Your task to perform on an android device: Empty the shopping cart on amazon. Search for asus zenbook on amazon, select the first entry, and add it to the cart. Image 0: 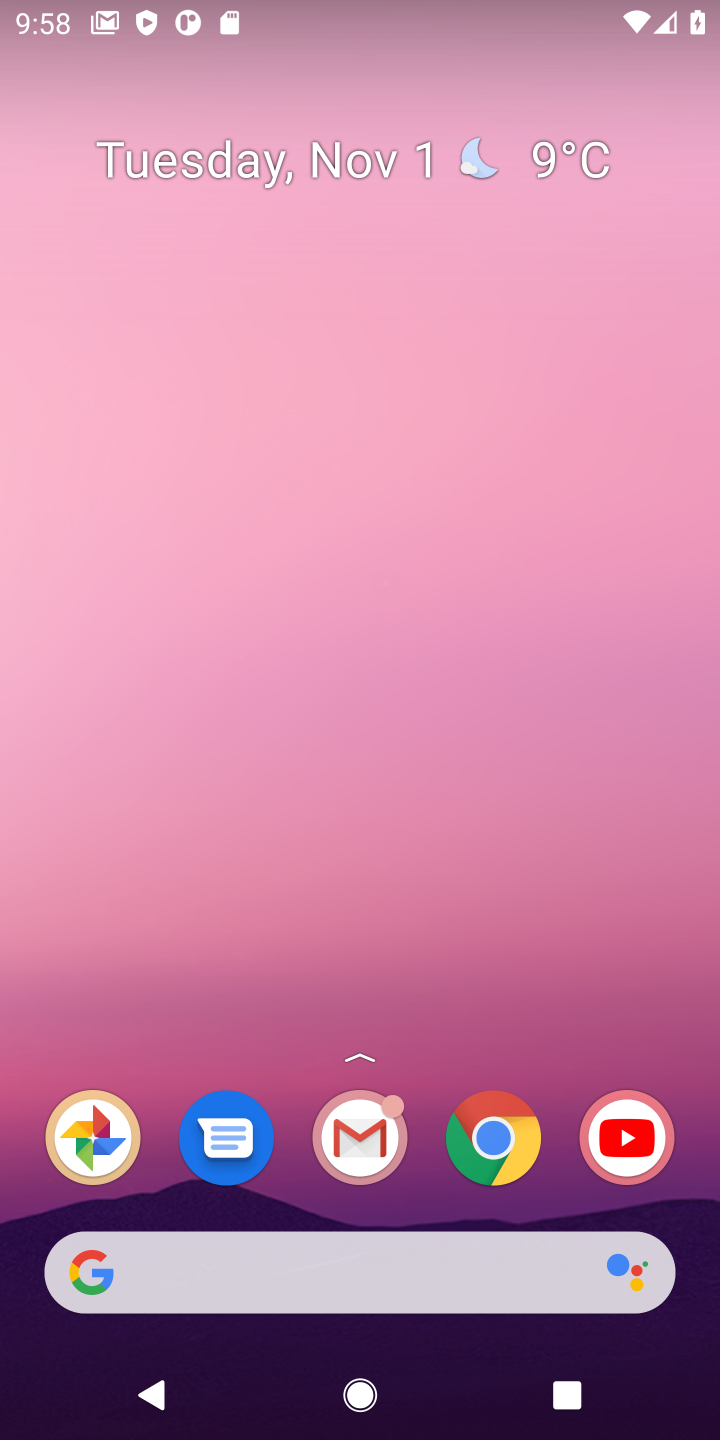
Step 0: click (493, 1147)
Your task to perform on an android device: Empty the shopping cart on amazon. Search for asus zenbook on amazon, select the first entry, and add it to the cart. Image 1: 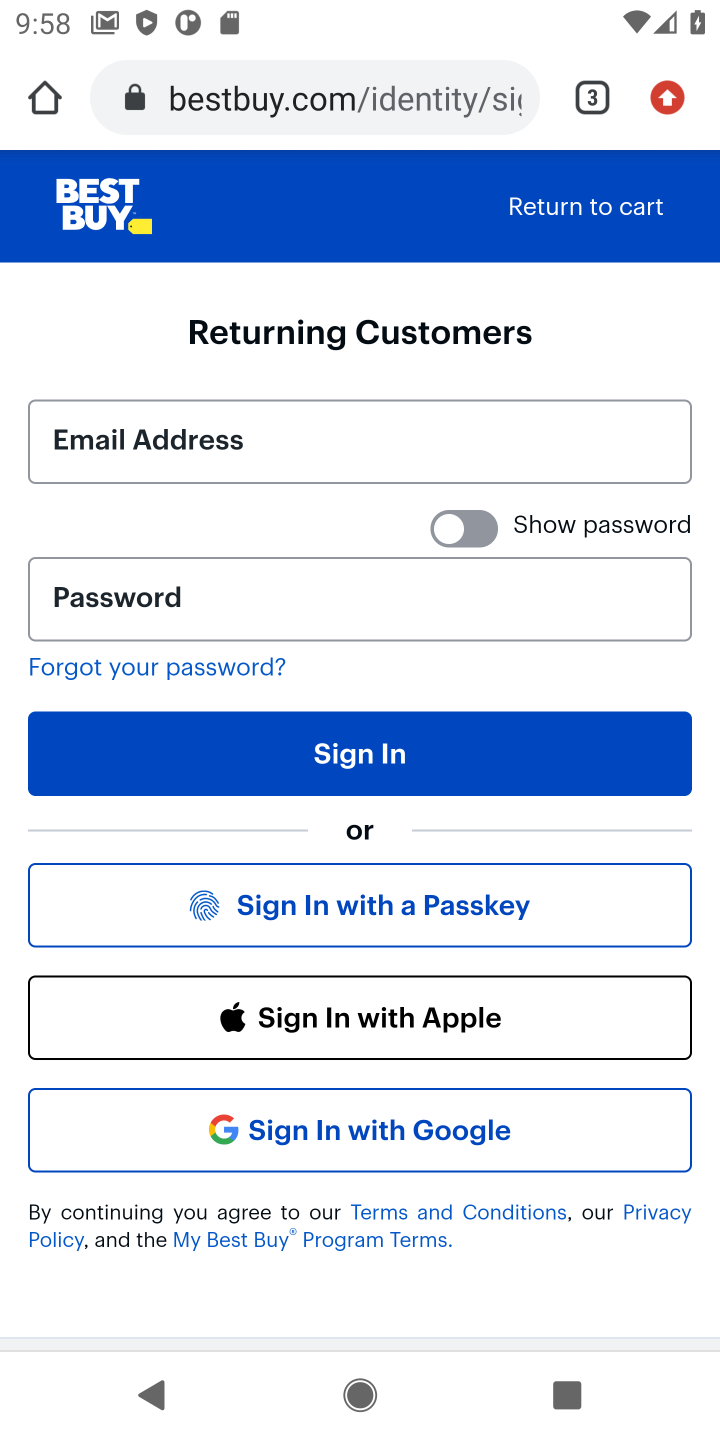
Step 1: click (591, 96)
Your task to perform on an android device: Empty the shopping cart on amazon. Search for asus zenbook on amazon, select the first entry, and add it to the cart. Image 2: 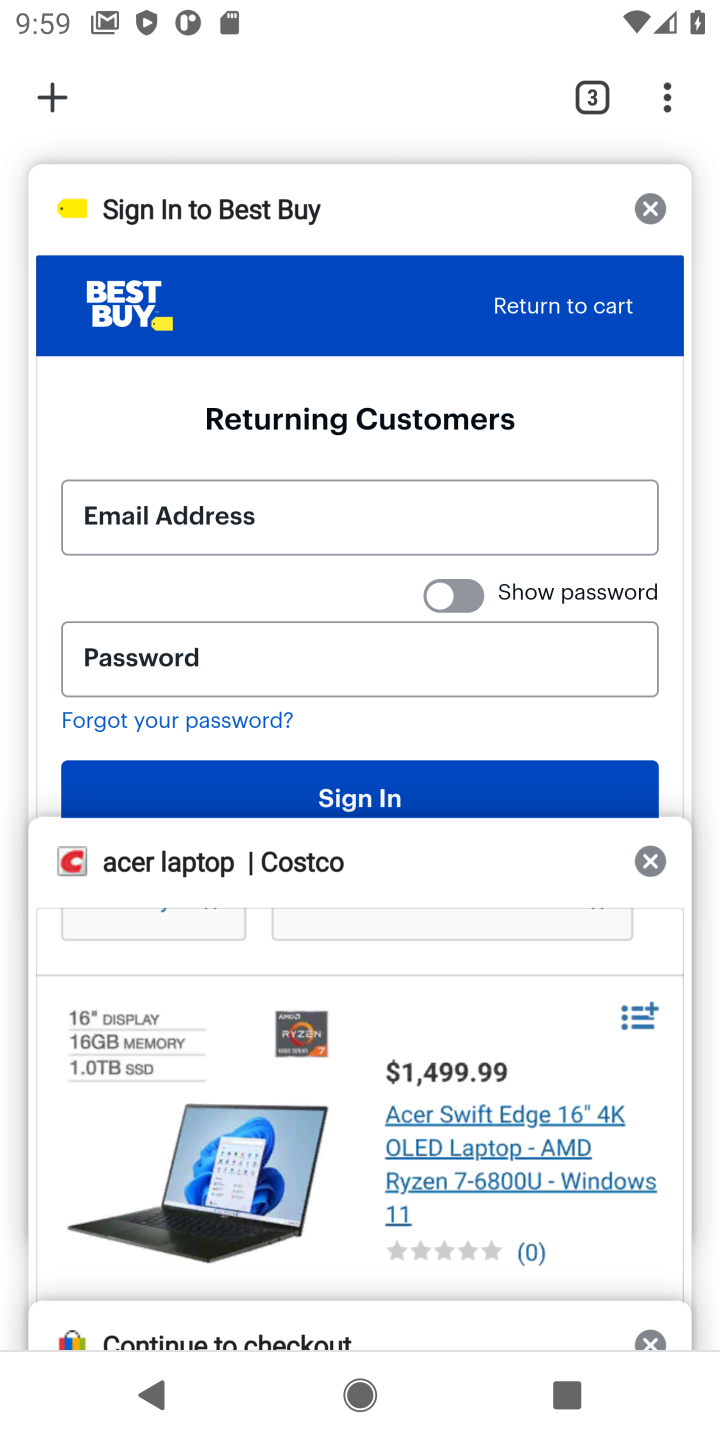
Step 2: click (56, 112)
Your task to perform on an android device: Empty the shopping cart on amazon. Search for asus zenbook on amazon, select the first entry, and add it to the cart. Image 3: 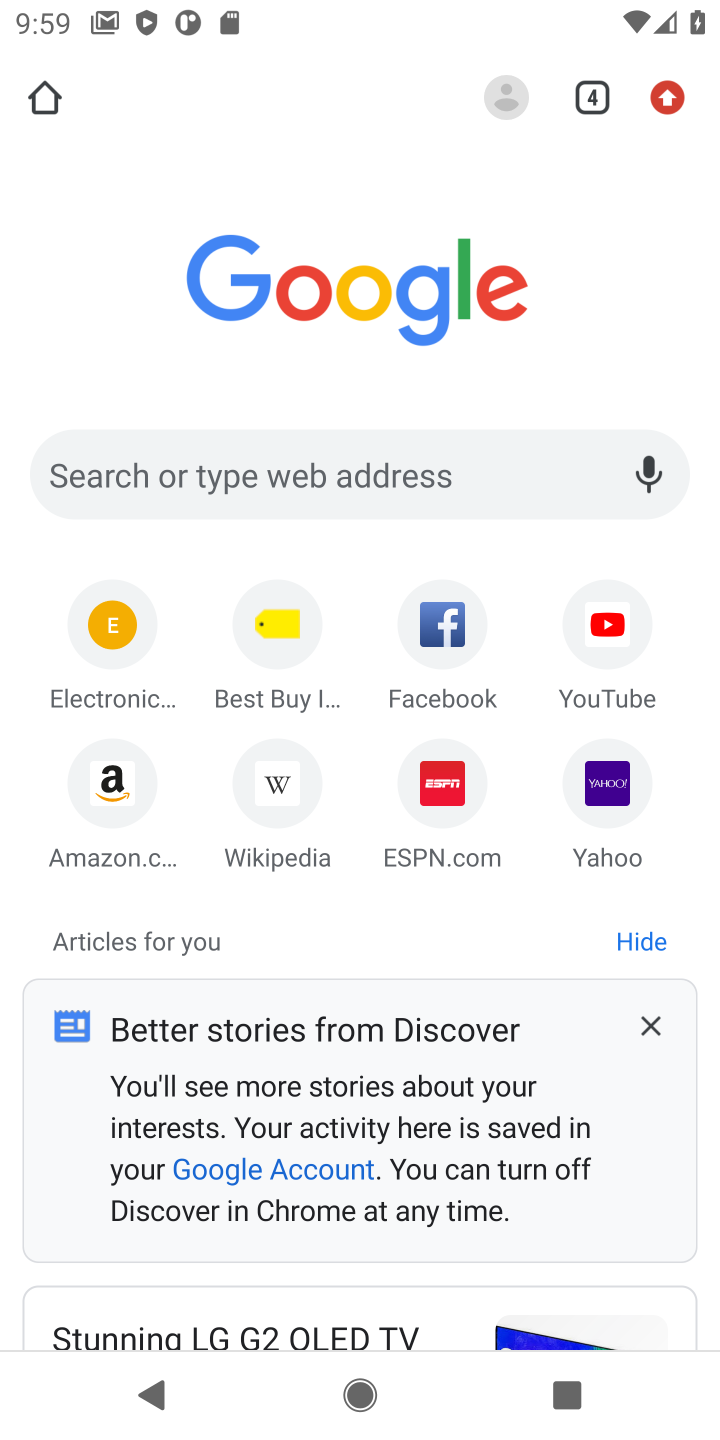
Step 3: click (332, 470)
Your task to perform on an android device: Empty the shopping cart on amazon. Search for asus zenbook on amazon, select the first entry, and add it to the cart. Image 4: 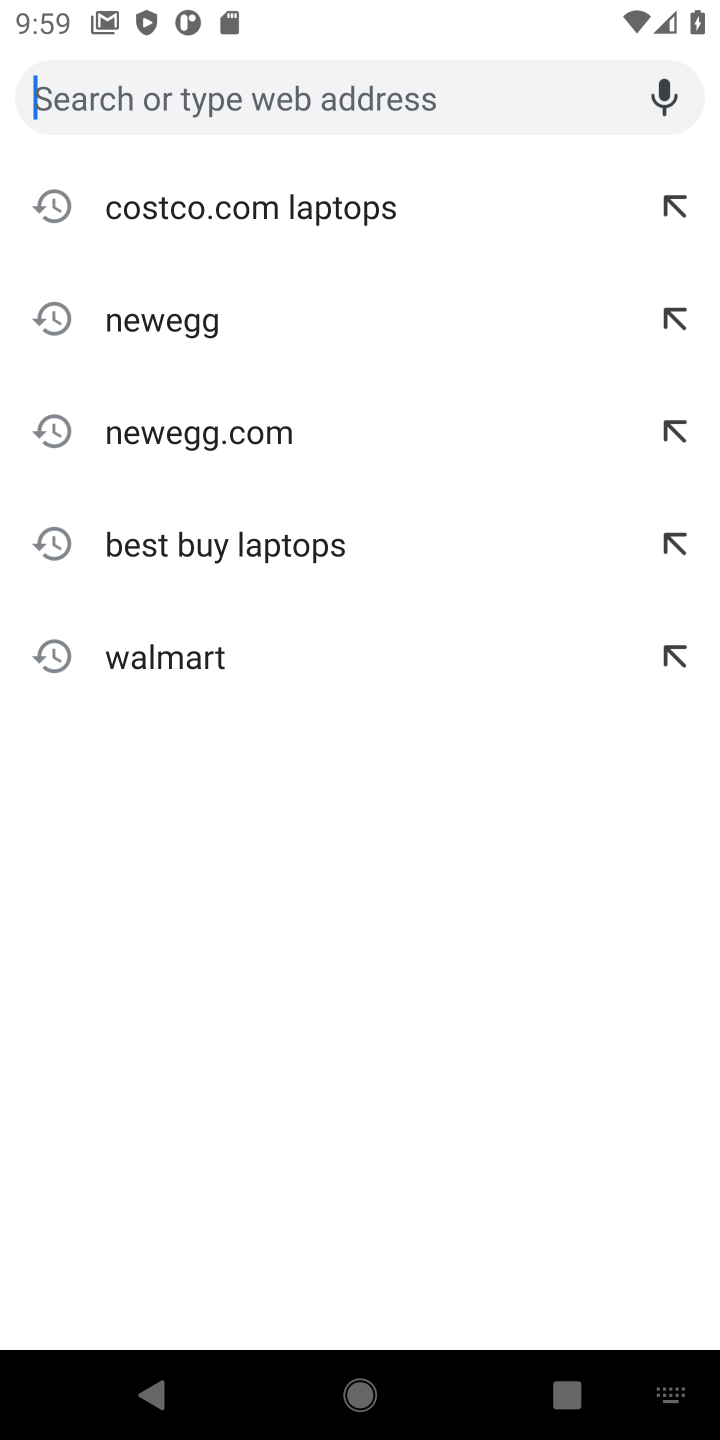
Step 4: type "amazon"
Your task to perform on an android device: Empty the shopping cart on amazon. Search for asus zenbook on amazon, select the first entry, and add it to the cart. Image 5: 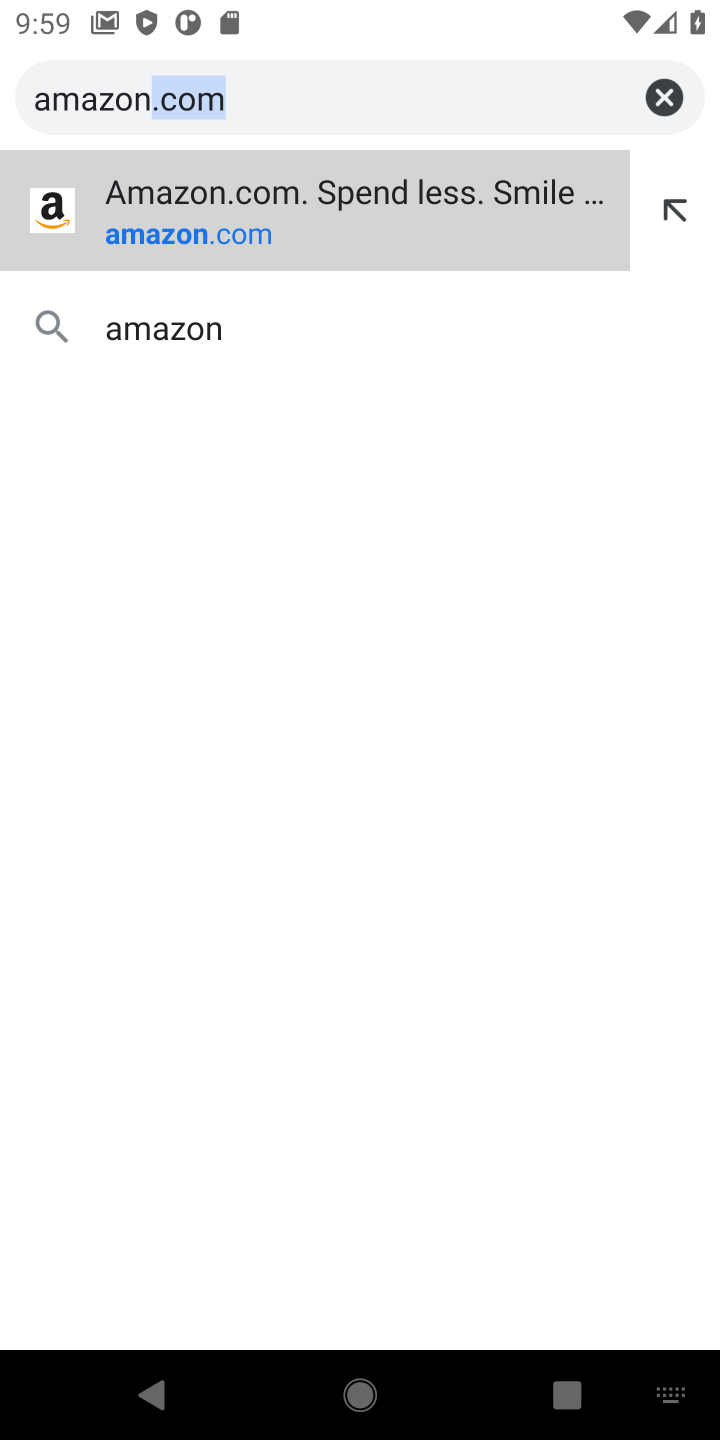
Step 5: click (424, 229)
Your task to perform on an android device: Empty the shopping cart on amazon. Search for asus zenbook on amazon, select the first entry, and add it to the cart. Image 6: 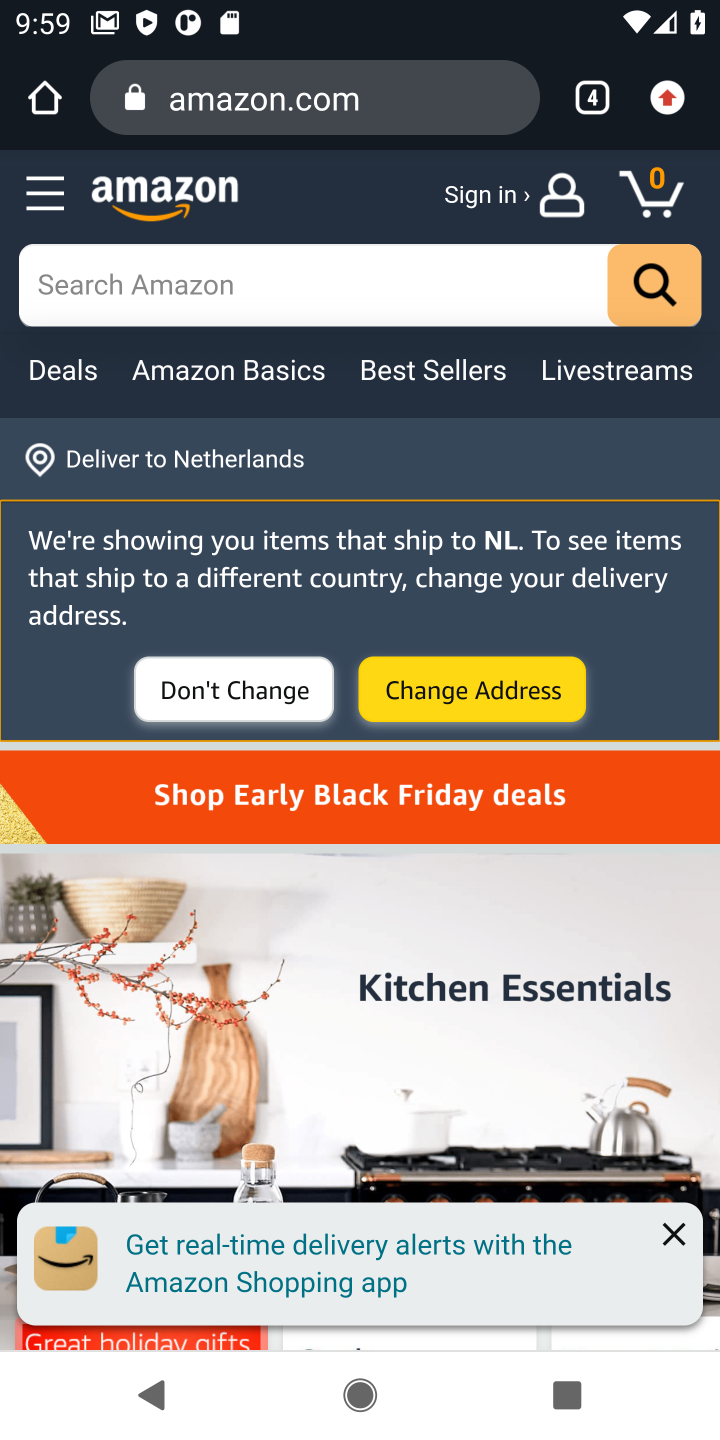
Step 6: click (292, 264)
Your task to perform on an android device: Empty the shopping cart on amazon. Search for asus zenbook on amazon, select the first entry, and add it to the cart. Image 7: 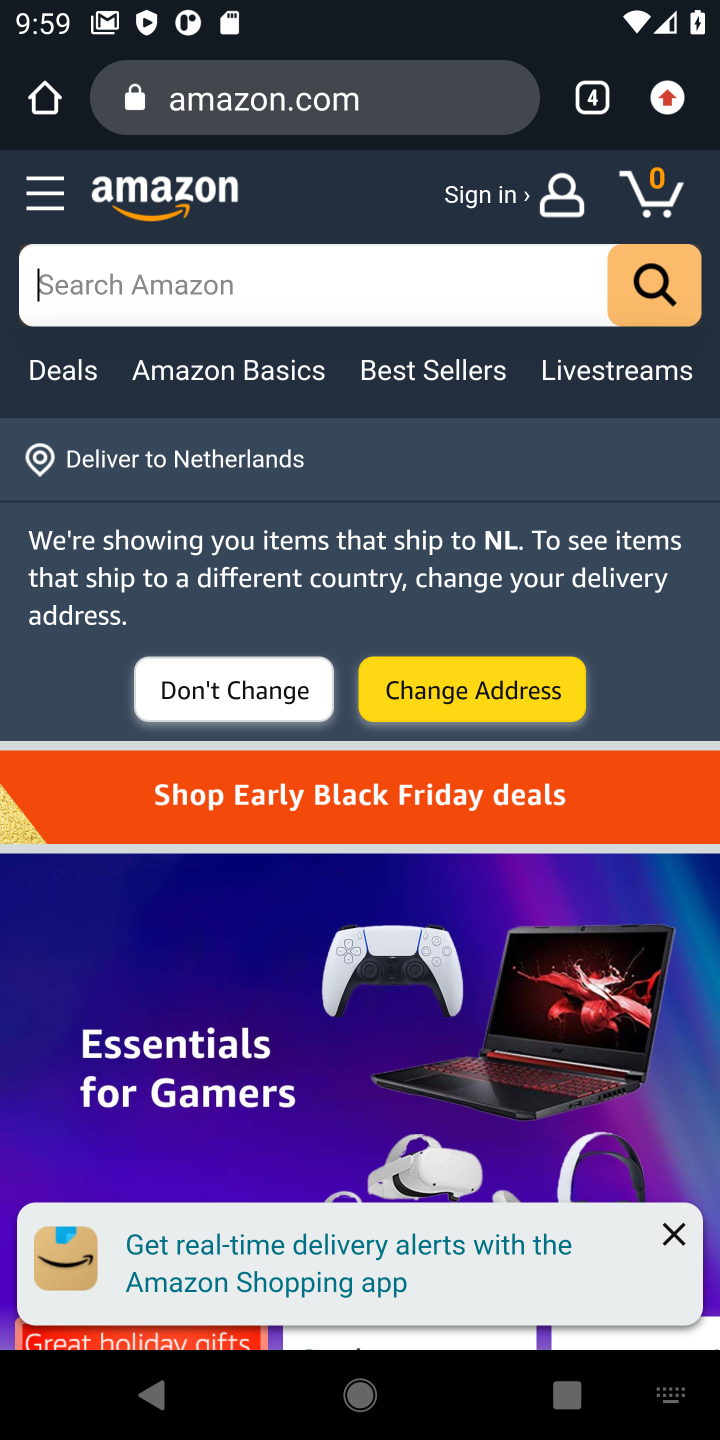
Step 7: type " asus zenbook"
Your task to perform on an android device: Empty the shopping cart on amazon. Search for asus zenbook on amazon, select the first entry, and add it to the cart. Image 8: 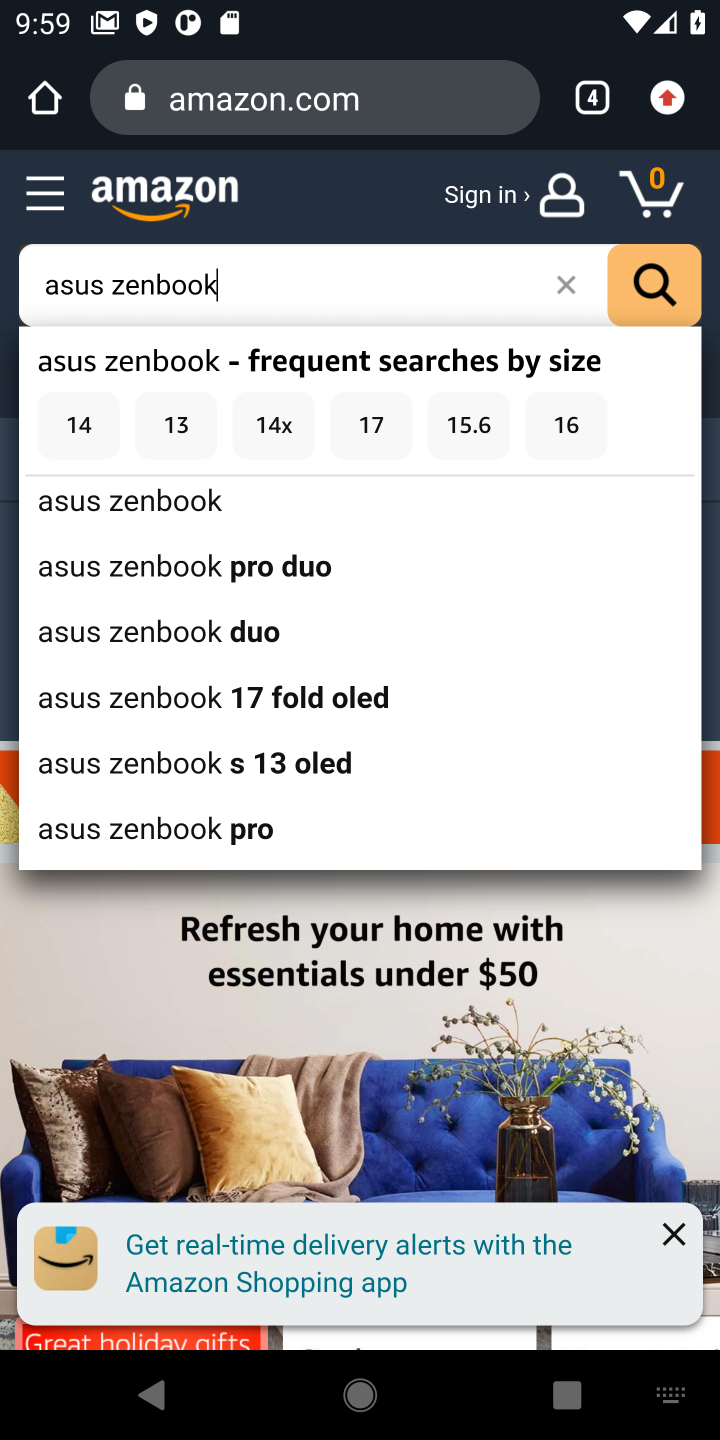
Step 8: click (672, 1234)
Your task to perform on an android device: Empty the shopping cart on amazon. Search for asus zenbook on amazon, select the first entry, and add it to the cart. Image 9: 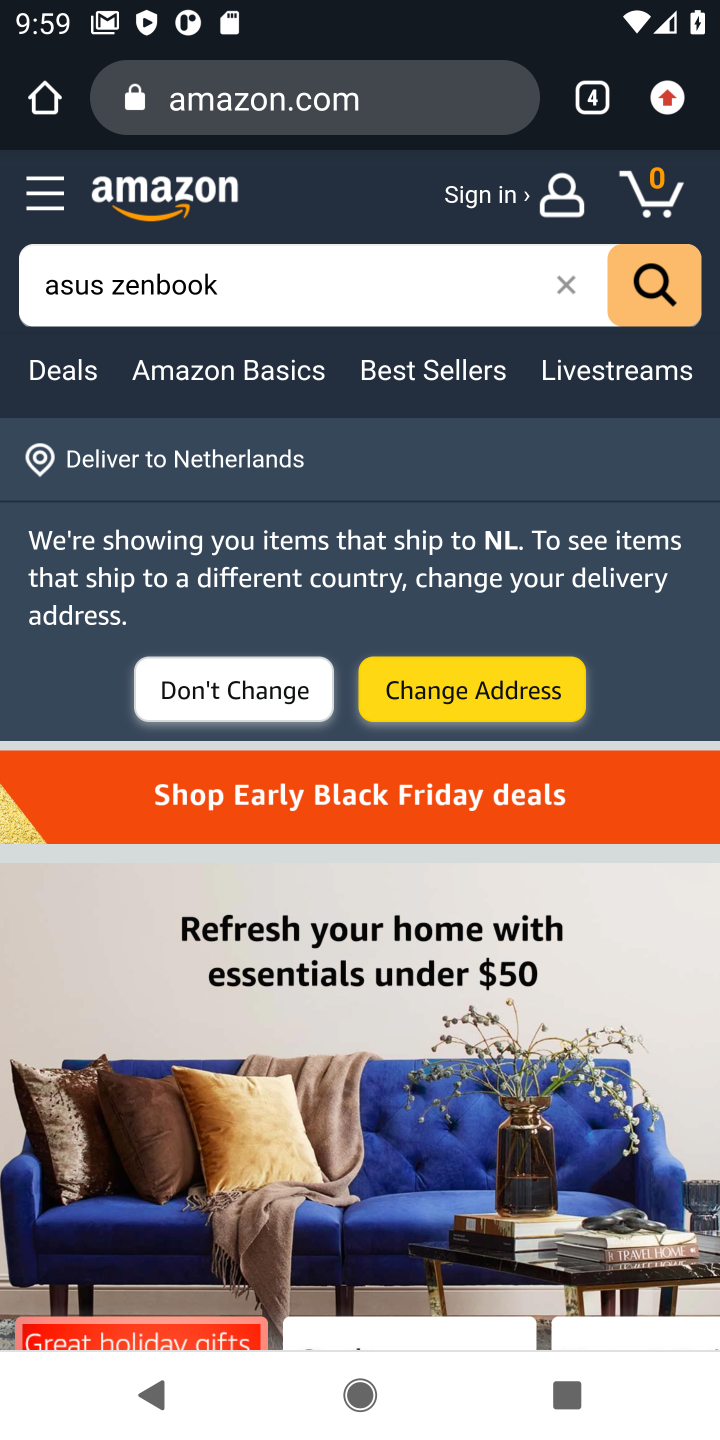
Step 9: click (665, 285)
Your task to perform on an android device: Empty the shopping cart on amazon. Search for asus zenbook on amazon, select the first entry, and add it to the cart. Image 10: 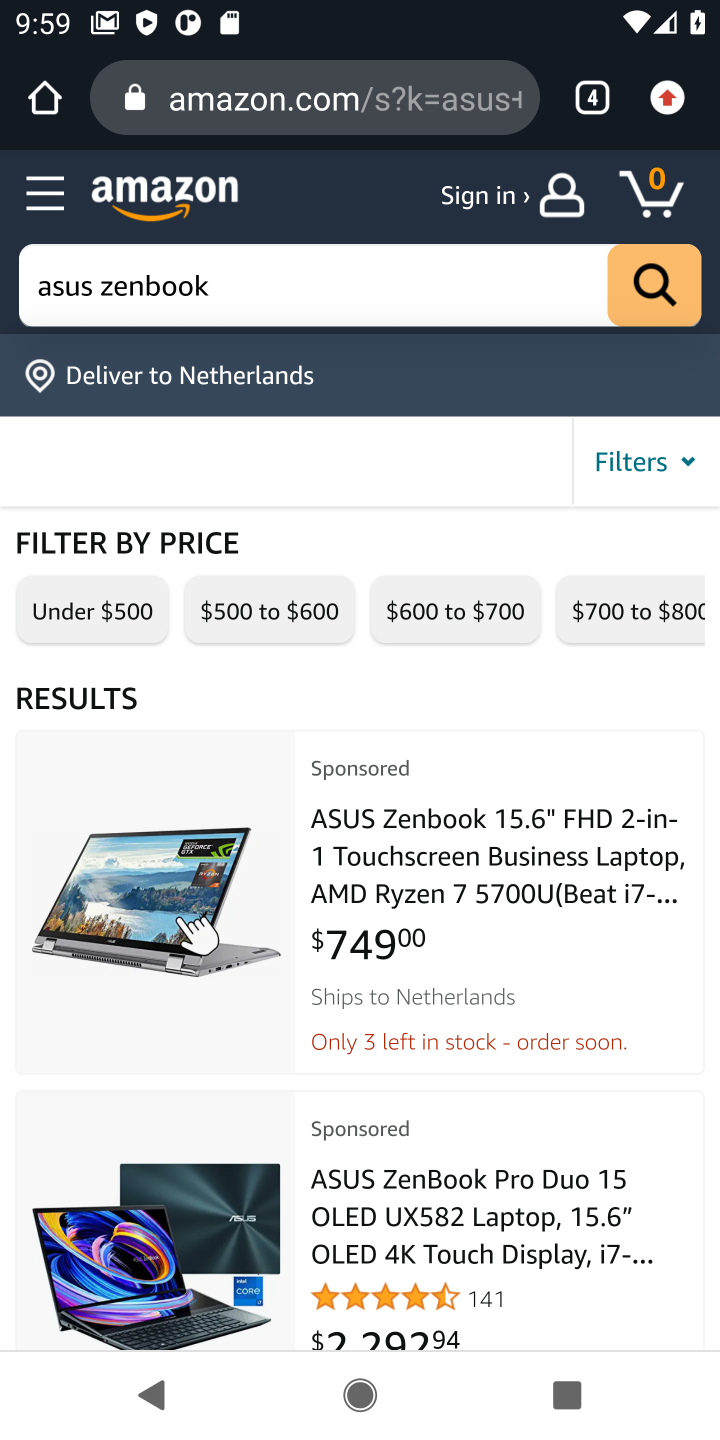
Step 10: click (442, 852)
Your task to perform on an android device: Empty the shopping cart on amazon. Search for asus zenbook on amazon, select the first entry, and add it to the cart. Image 11: 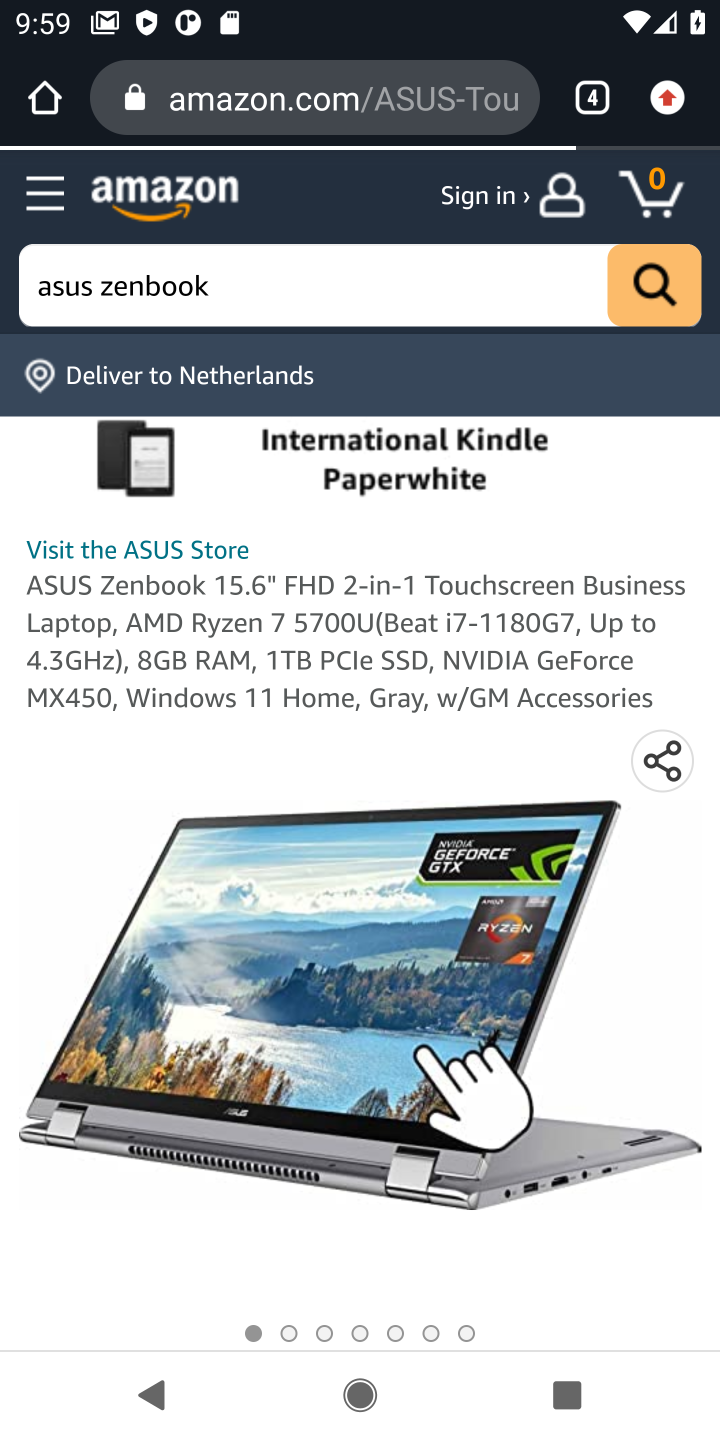
Step 11: drag from (540, 1220) to (506, 331)
Your task to perform on an android device: Empty the shopping cart on amazon. Search for asus zenbook on amazon, select the first entry, and add it to the cart. Image 12: 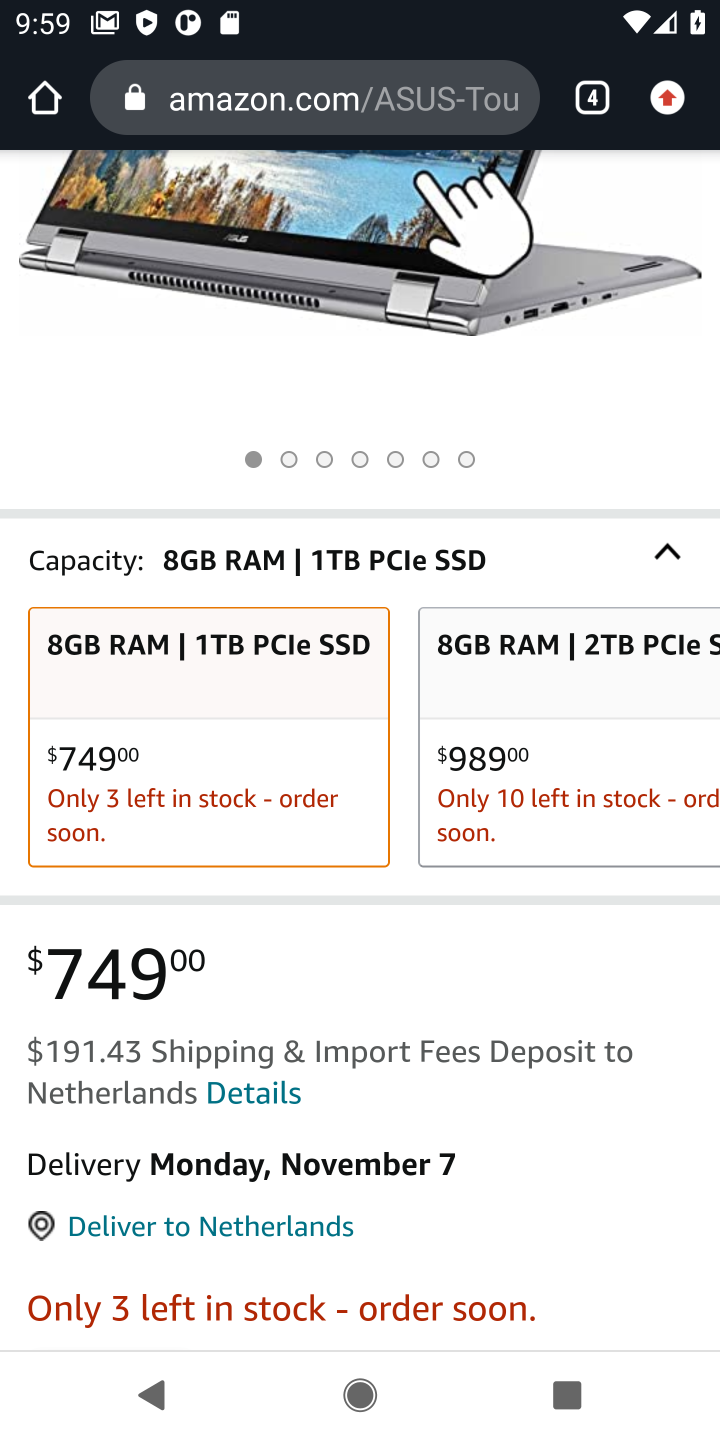
Step 12: drag from (465, 1011) to (518, 532)
Your task to perform on an android device: Empty the shopping cart on amazon. Search for asus zenbook on amazon, select the first entry, and add it to the cart. Image 13: 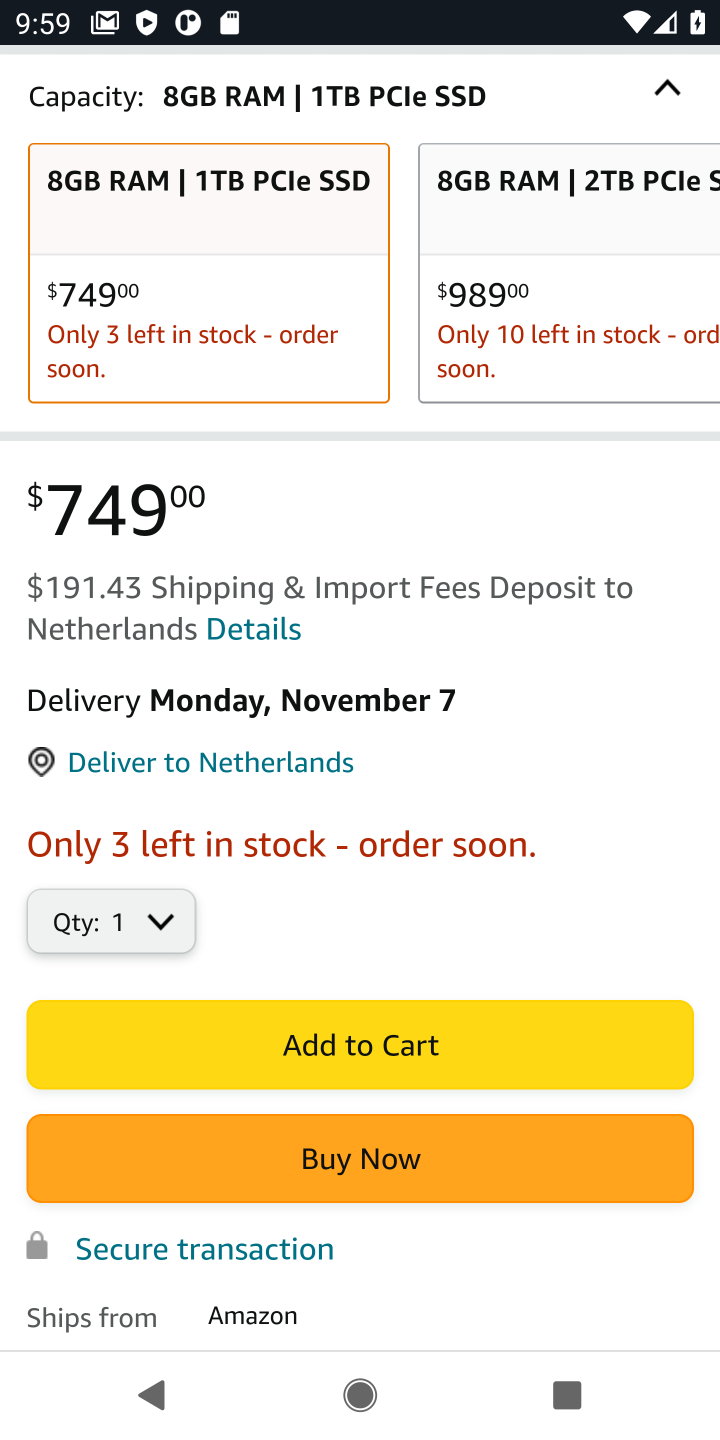
Step 13: click (428, 1049)
Your task to perform on an android device: Empty the shopping cart on amazon. Search for asus zenbook on amazon, select the first entry, and add it to the cart. Image 14: 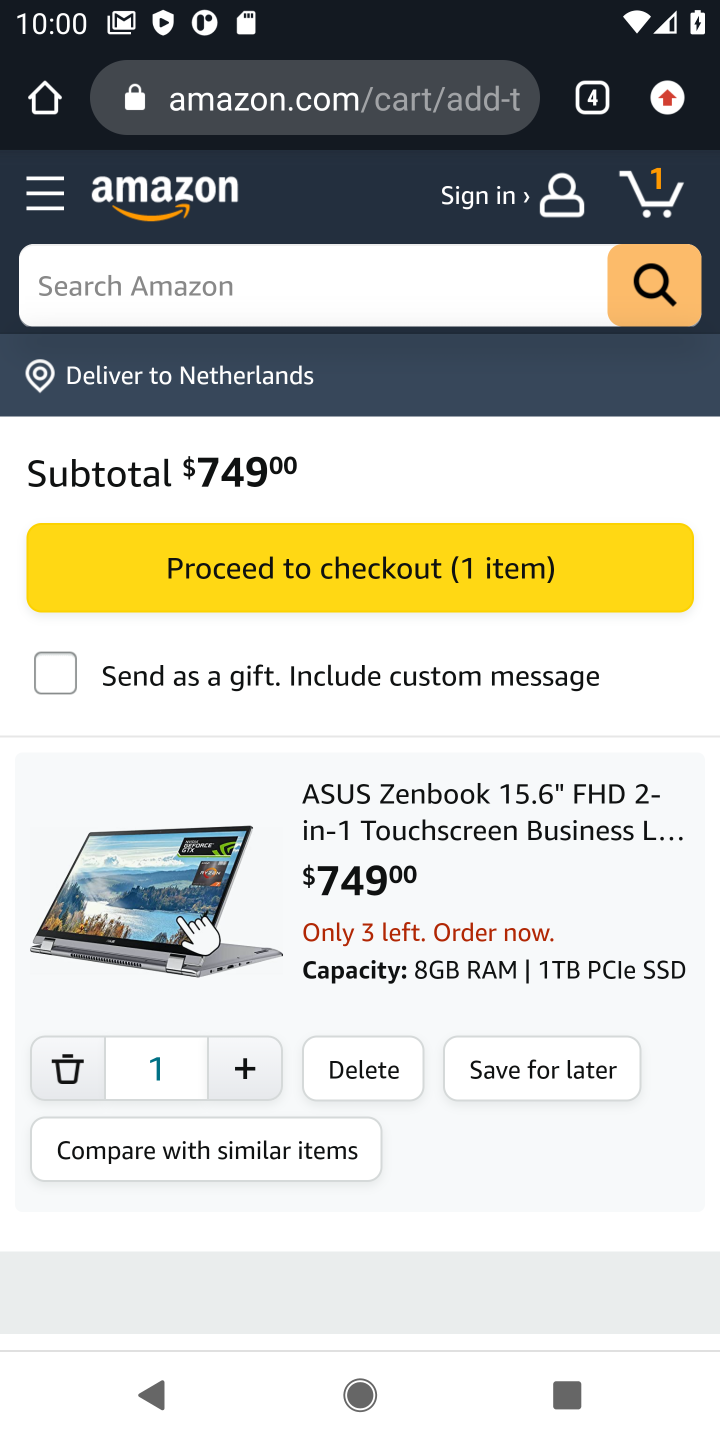
Step 14: task complete